Your task to perform on an android device: create a new album in the google photos Image 0: 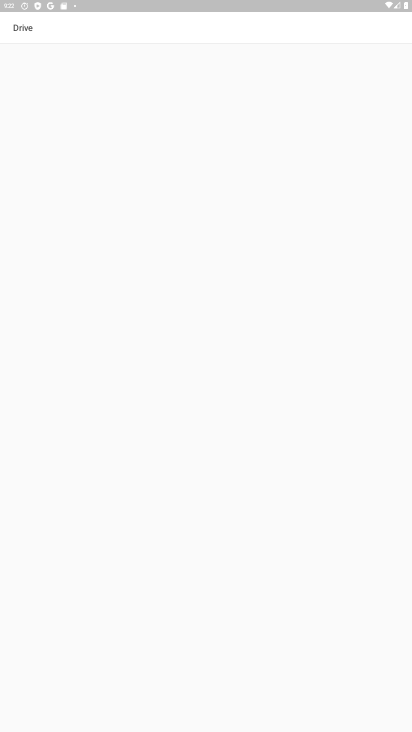
Step 0: press home button
Your task to perform on an android device: create a new album in the google photos Image 1: 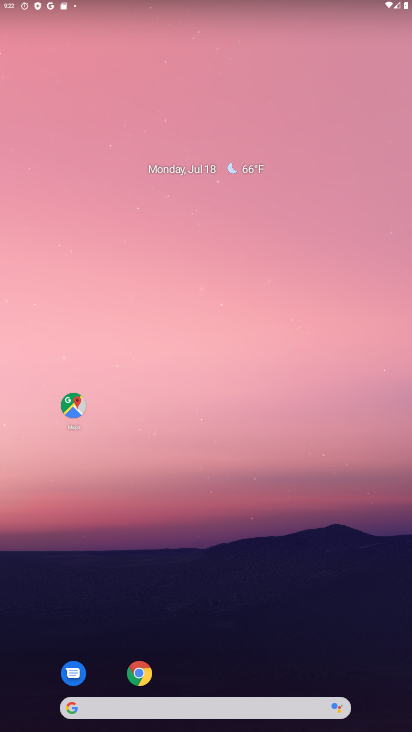
Step 1: drag from (202, 668) to (190, 212)
Your task to perform on an android device: create a new album in the google photos Image 2: 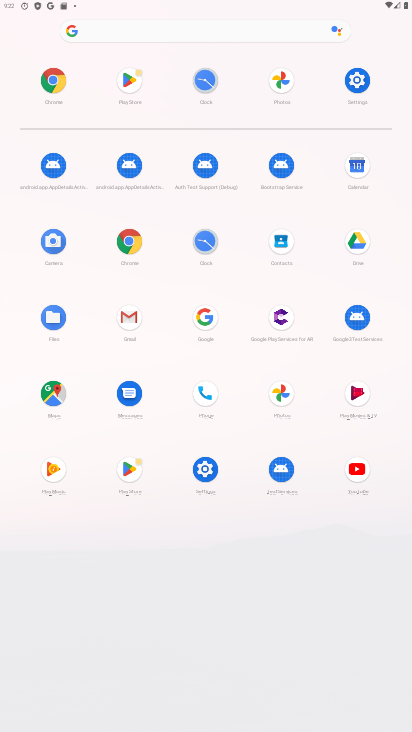
Step 2: click (280, 398)
Your task to perform on an android device: create a new album in the google photos Image 3: 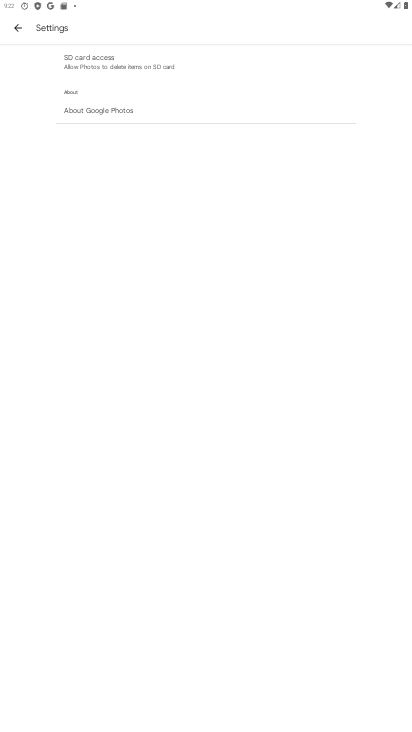
Step 3: press back button
Your task to perform on an android device: create a new album in the google photos Image 4: 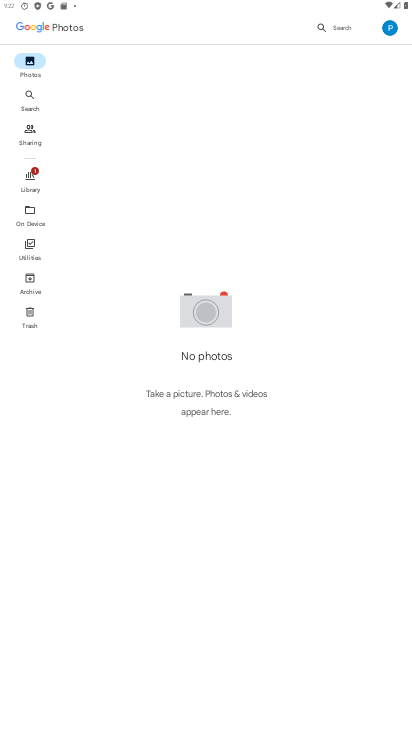
Step 4: click (29, 94)
Your task to perform on an android device: create a new album in the google photos Image 5: 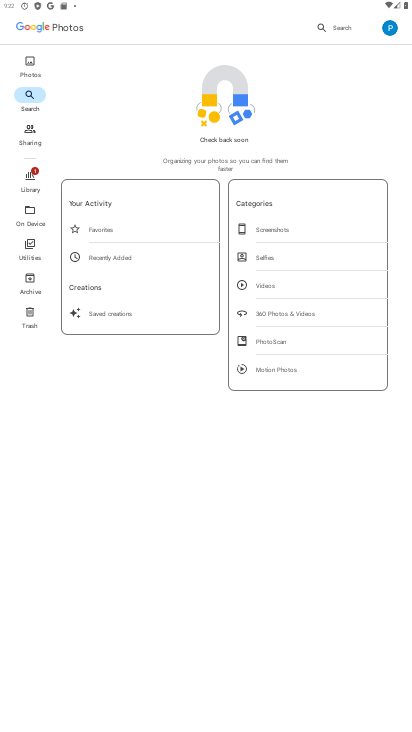
Step 5: click (34, 174)
Your task to perform on an android device: create a new album in the google photos Image 6: 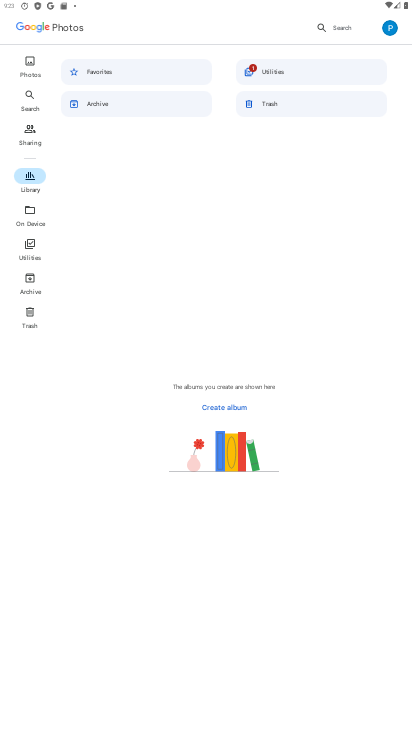
Step 6: click (231, 401)
Your task to perform on an android device: create a new album in the google photos Image 7: 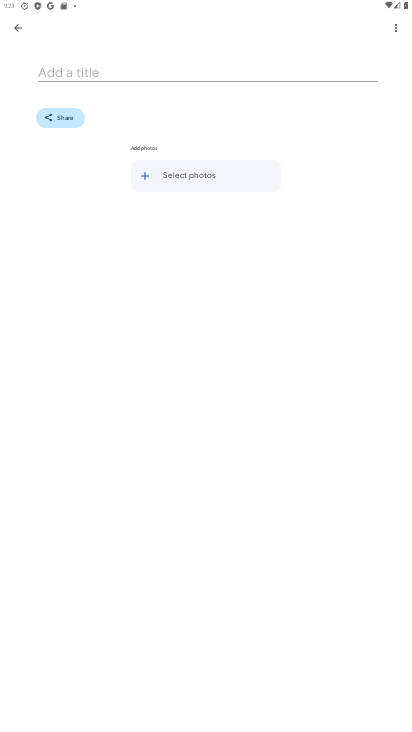
Step 7: click (149, 174)
Your task to perform on an android device: create a new album in the google photos Image 8: 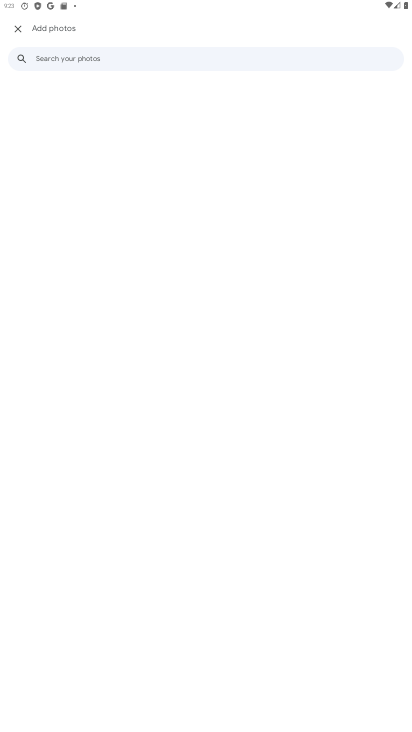
Step 8: task complete